Your task to perform on an android device: What is the recent news? Image 0: 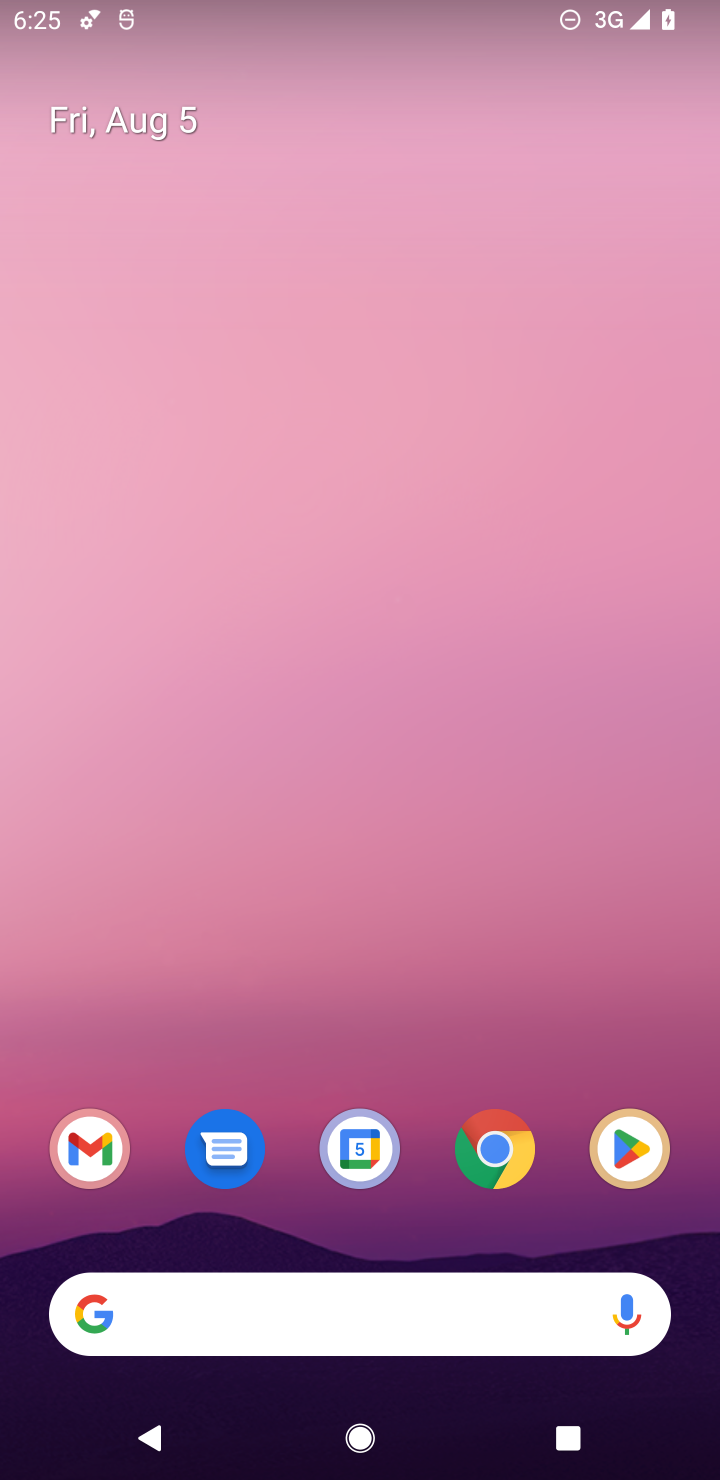
Step 0: click (367, 1299)
Your task to perform on an android device: What is the recent news? Image 1: 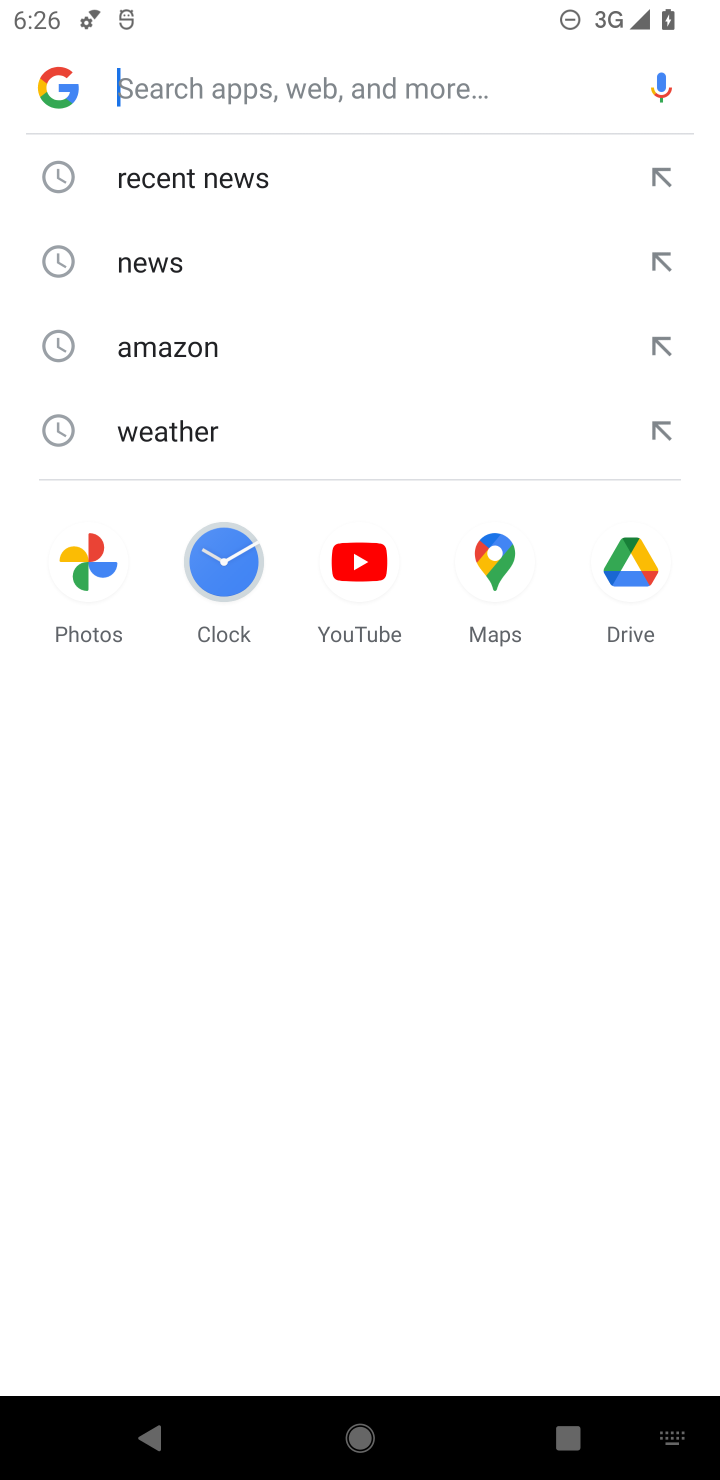
Step 1: click (174, 180)
Your task to perform on an android device: What is the recent news? Image 2: 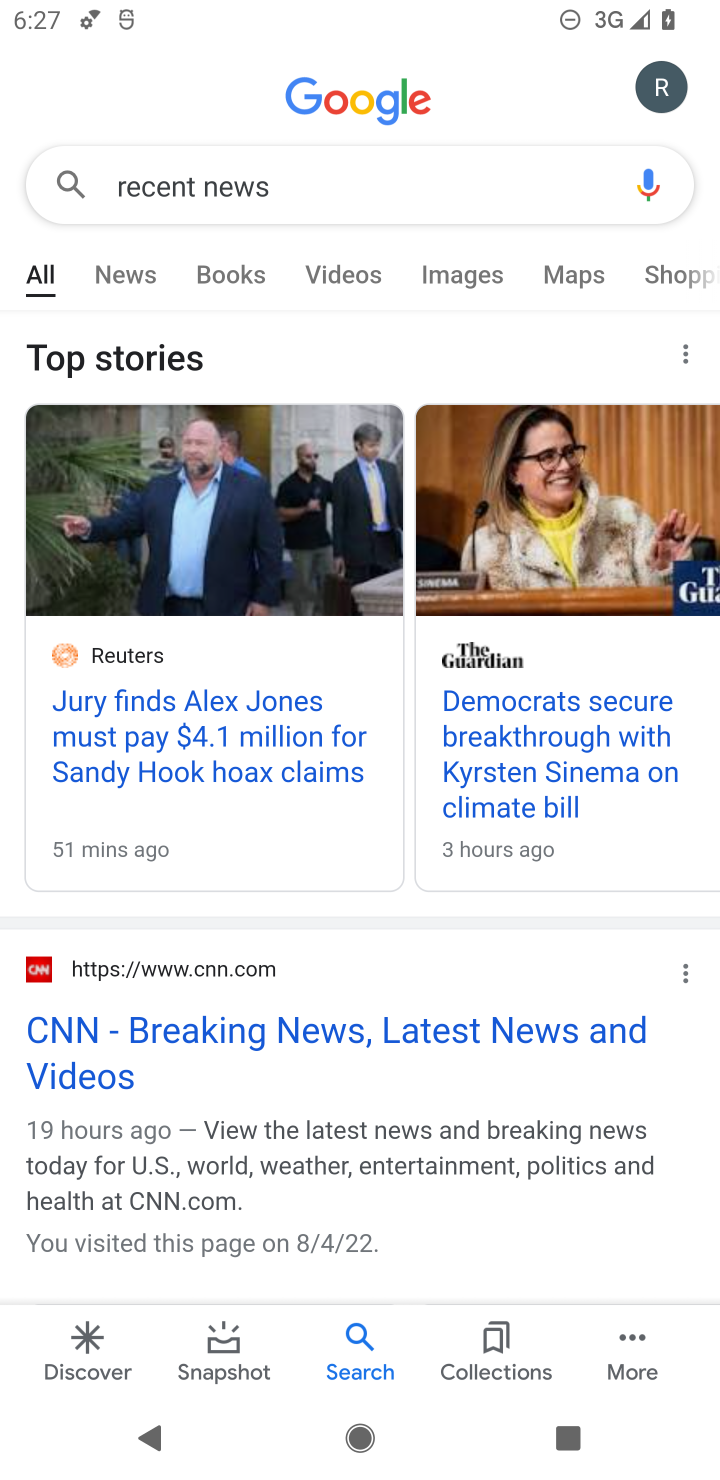
Step 2: task complete